Your task to perform on an android device: toggle translation in the chrome app Image 0: 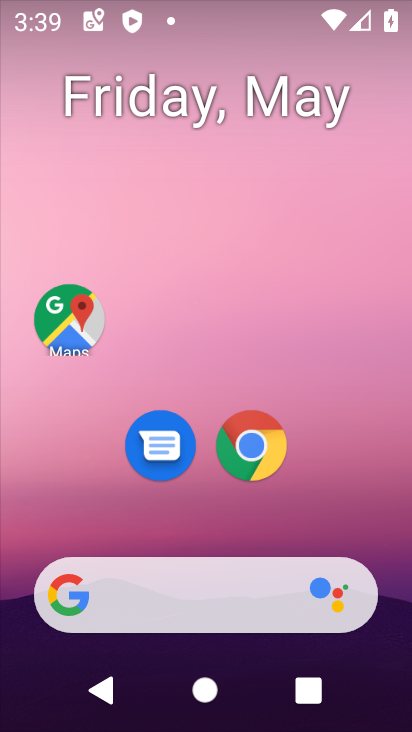
Step 0: click (251, 435)
Your task to perform on an android device: toggle translation in the chrome app Image 1: 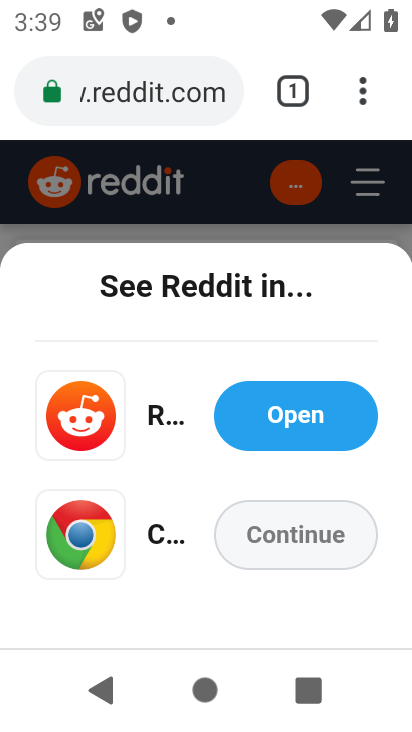
Step 1: click (357, 95)
Your task to perform on an android device: toggle translation in the chrome app Image 2: 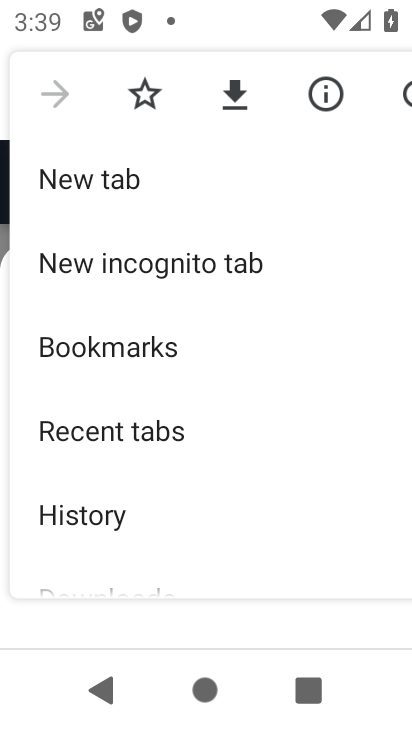
Step 2: drag from (132, 499) to (194, 203)
Your task to perform on an android device: toggle translation in the chrome app Image 3: 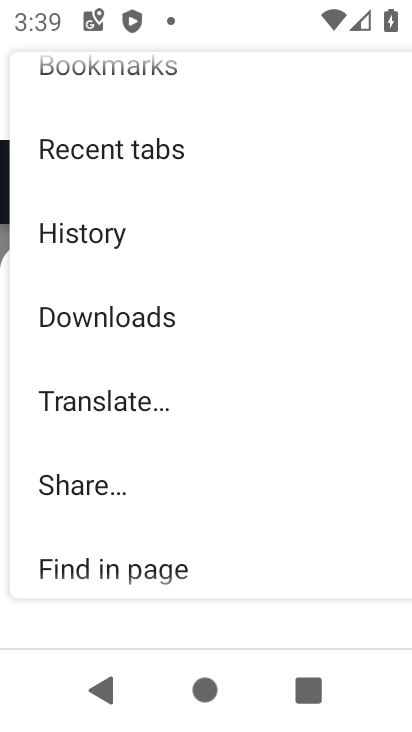
Step 3: drag from (111, 506) to (157, 218)
Your task to perform on an android device: toggle translation in the chrome app Image 4: 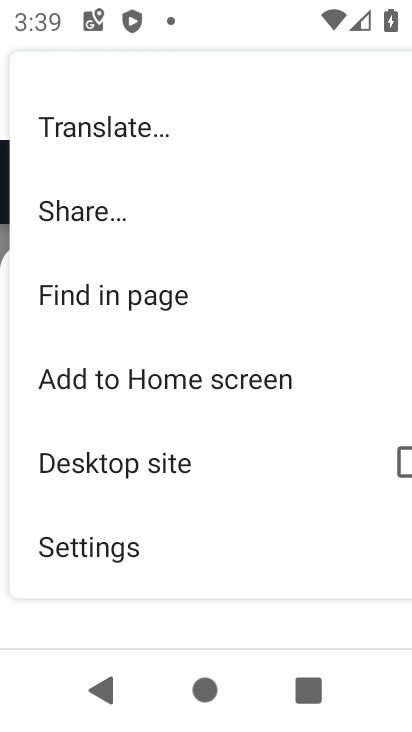
Step 4: drag from (116, 492) to (163, 152)
Your task to perform on an android device: toggle translation in the chrome app Image 5: 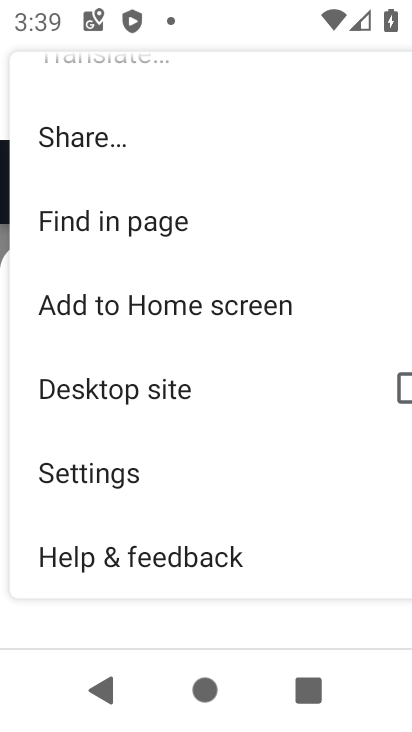
Step 5: click (115, 477)
Your task to perform on an android device: toggle translation in the chrome app Image 6: 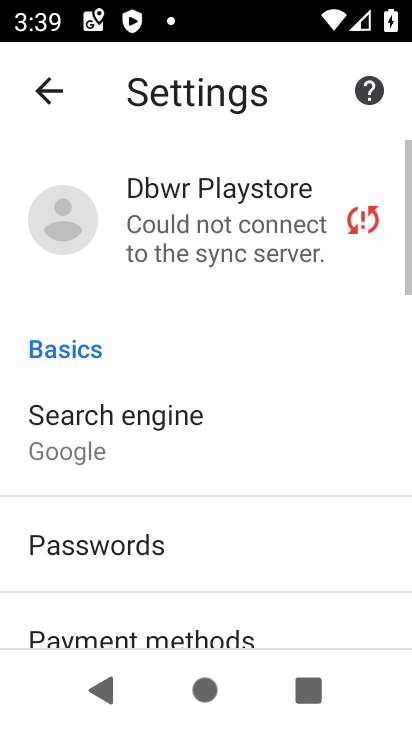
Step 6: drag from (120, 529) to (180, 210)
Your task to perform on an android device: toggle translation in the chrome app Image 7: 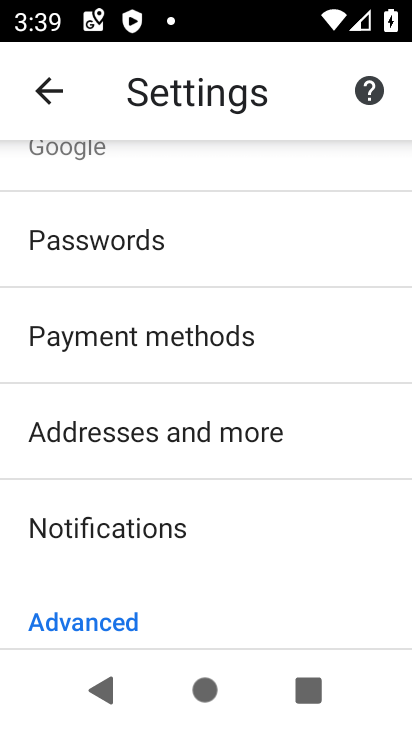
Step 7: drag from (179, 522) to (196, 361)
Your task to perform on an android device: toggle translation in the chrome app Image 8: 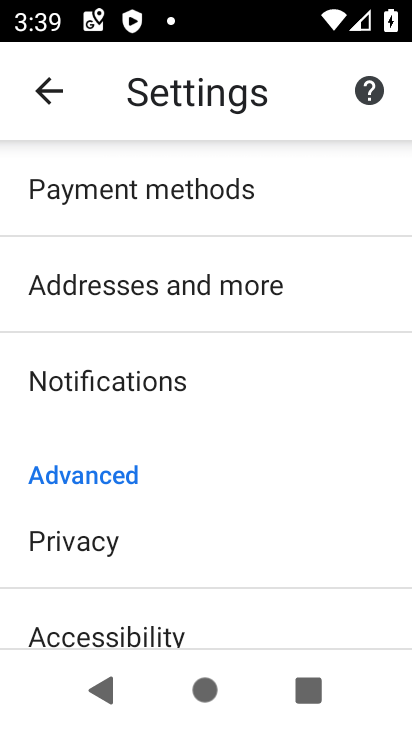
Step 8: drag from (145, 585) to (211, 182)
Your task to perform on an android device: toggle translation in the chrome app Image 9: 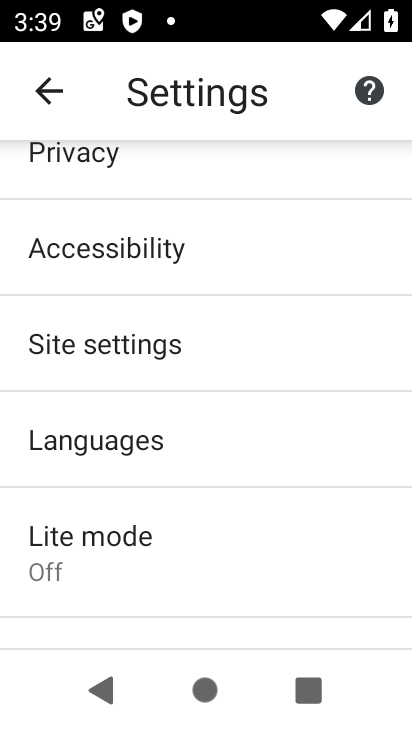
Step 9: click (139, 455)
Your task to perform on an android device: toggle translation in the chrome app Image 10: 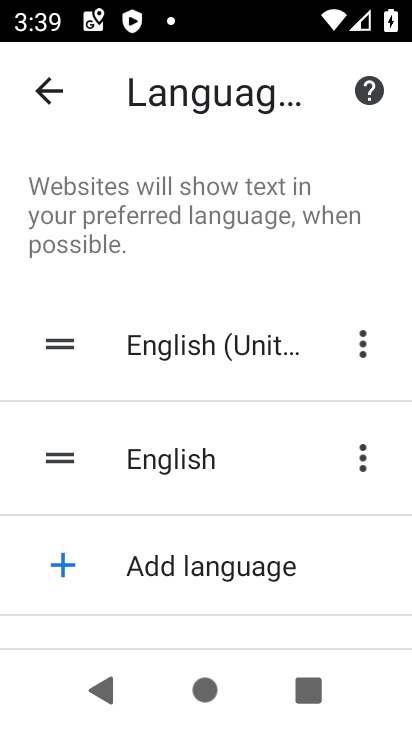
Step 10: drag from (328, 585) to (326, 118)
Your task to perform on an android device: toggle translation in the chrome app Image 11: 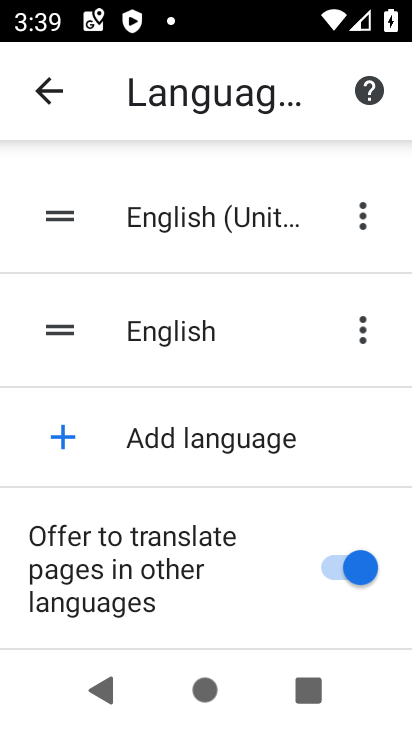
Step 11: click (314, 576)
Your task to perform on an android device: toggle translation in the chrome app Image 12: 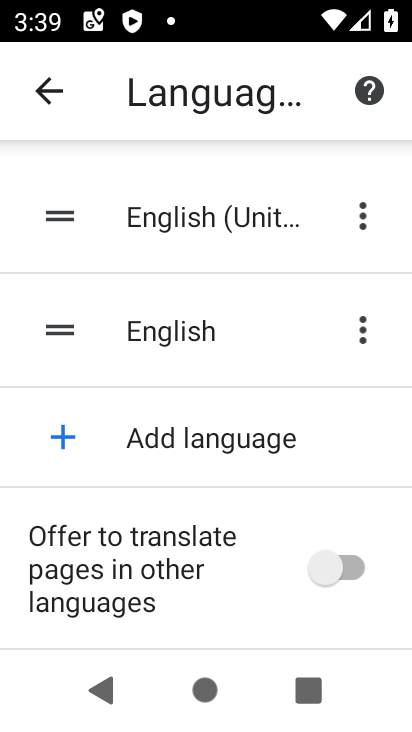
Step 12: task complete